Your task to perform on an android device: open a new tab in the chrome app Image 0: 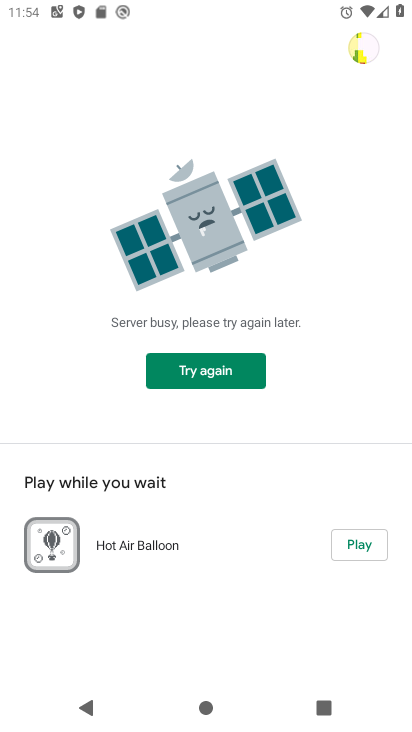
Step 0: press home button
Your task to perform on an android device: open a new tab in the chrome app Image 1: 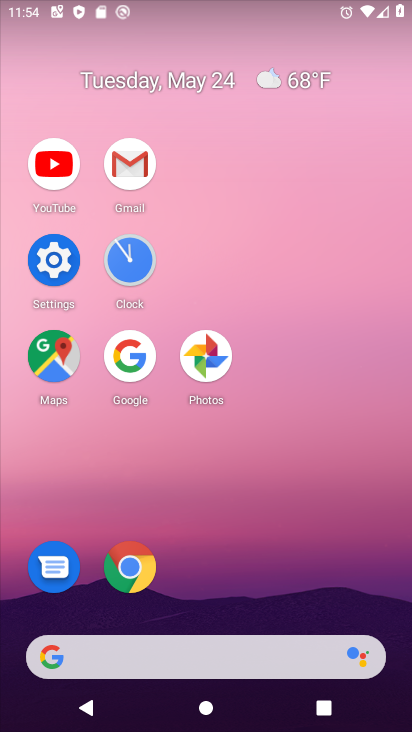
Step 1: click (135, 583)
Your task to perform on an android device: open a new tab in the chrome app Image 2: 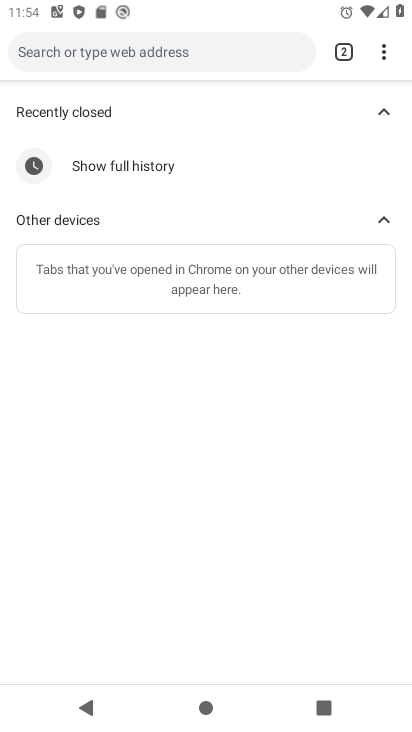
Step 2: click (337, 39)
Your task to perform on an android device: open a new tab in the chrome app Image 3: 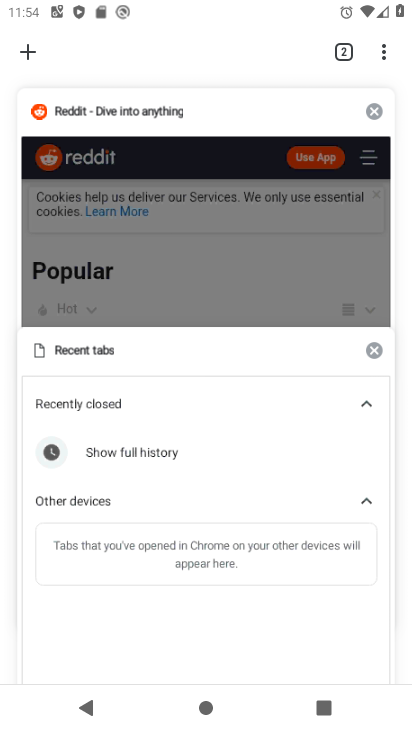
Step 3: click (26, 50)
Your task to perform on an android device: open a new tab in the chrome app Image 4: 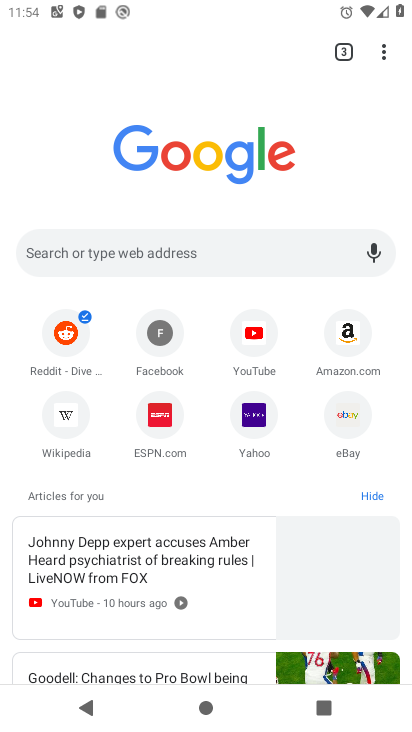
Step 4: task complete